Your task to perform on an android device: remove spam from my inbox in the gmail app Image 0: 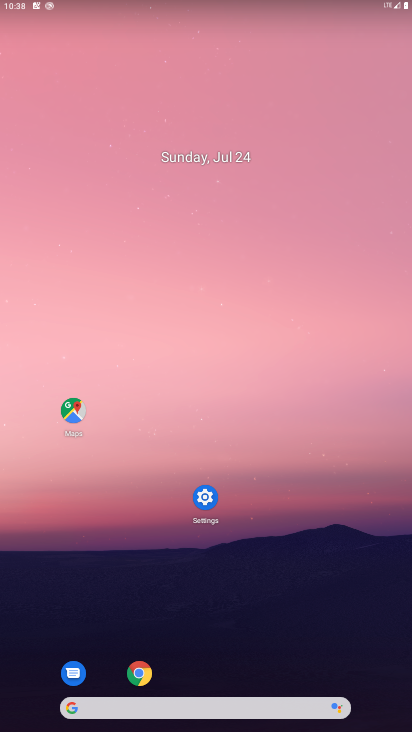
Step 0: drag from (295, 574) to (257, 192)
Your task to perform on an android device: remove spam from my inbox in the gmail app Image 1: 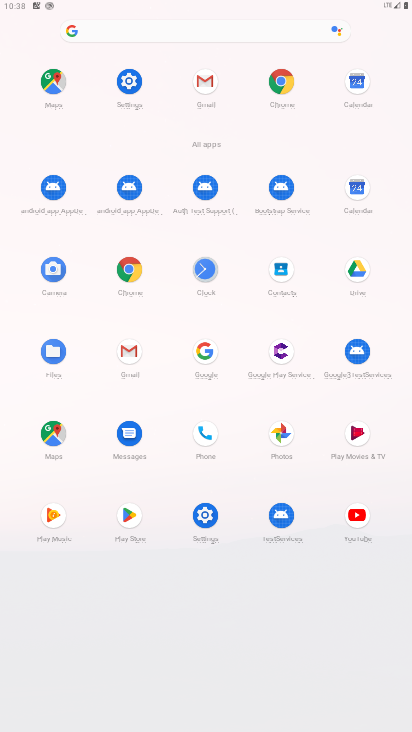
Step 1: click (125, 355)
Your task to perform on an android device: remove spam from my inbox in the gmail app Image 2: 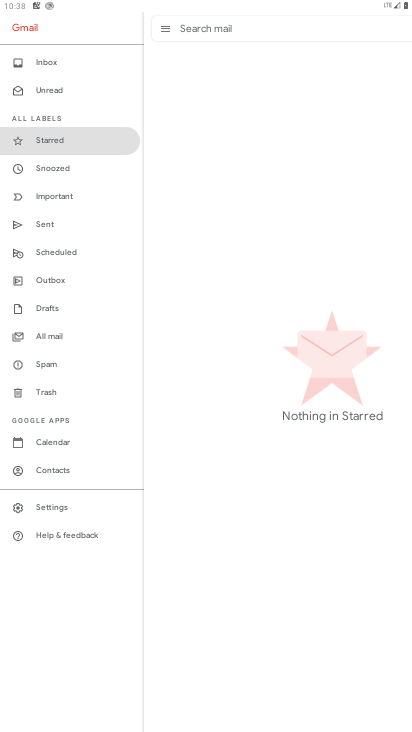
Step 2: click (50, 364)
Your task to perform on an android device: remove spam from my inbox in the gmail app Image 3: 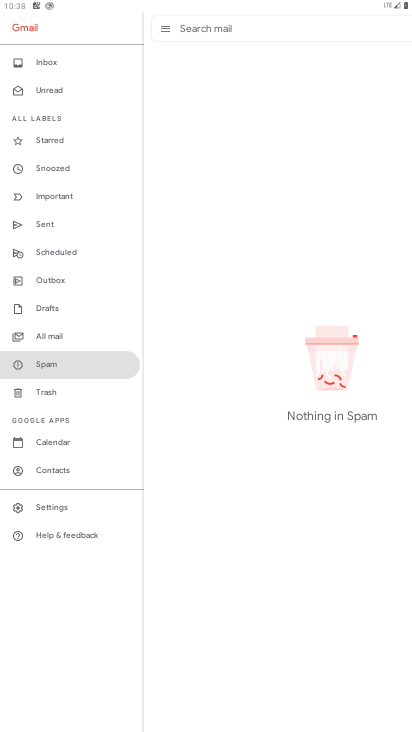
Step 3: task complete